Your task to perform on an android device: Is it going to rain this weekend? Image 0: 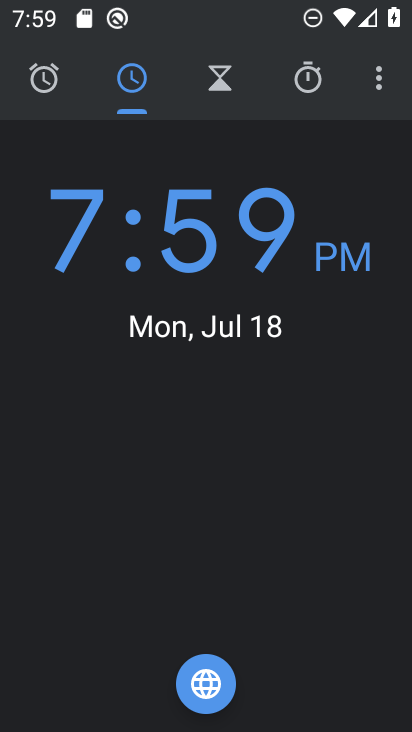
Step 0: press back button
Your task to perform on an android device: Is it going to rain this weekend? Image 1: 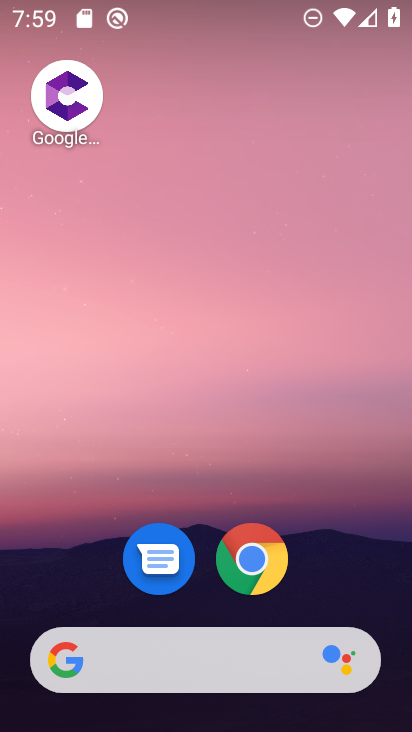
Step 1: drag from (156, 489) to (214, 78)
Your task to perform on an android device: Is it going to rain this weekend? Image 2: 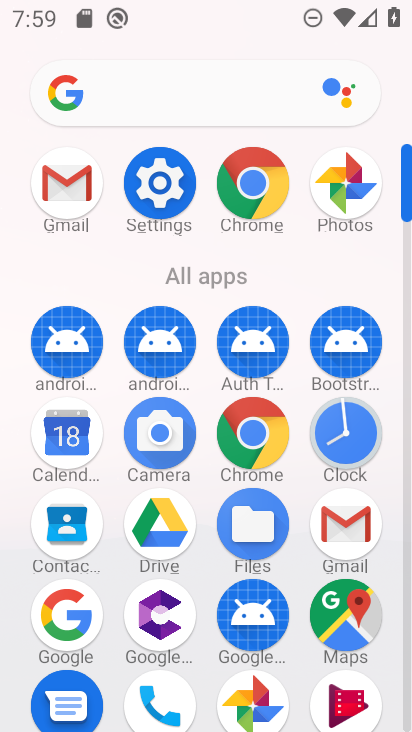
Step 2: click (151, 93)
Your task to perform on an android device: Is it going to rain this weekend? Image 3: 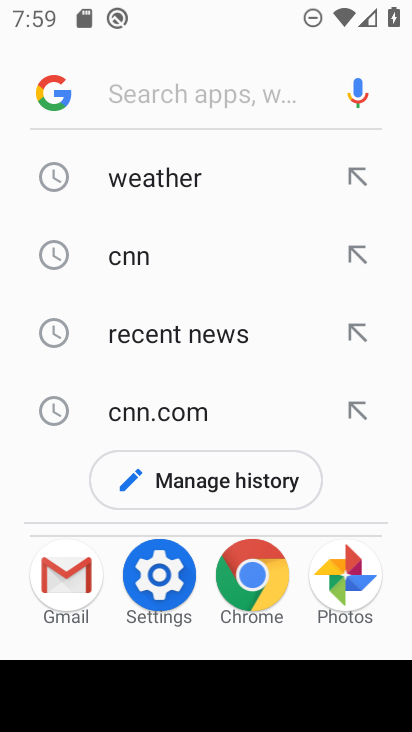
Step 3: click (150, 179)
Your task to perform on an android device: Is it going to rain this weekend? Image 4: 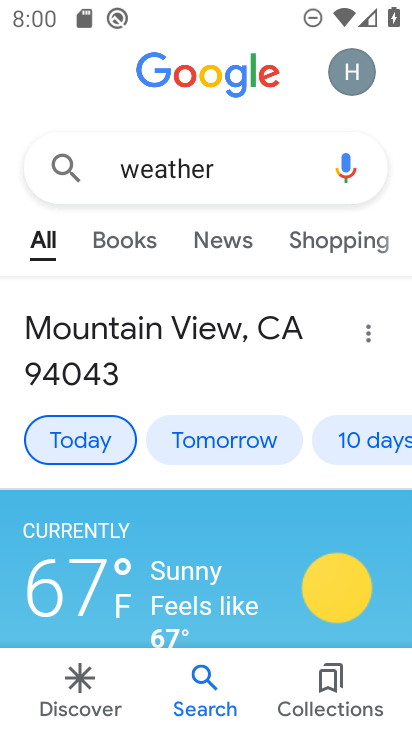
Step 4: click (383, 447)
Your task to perform on an android device: Is it going to rain this weekend? Image 5: 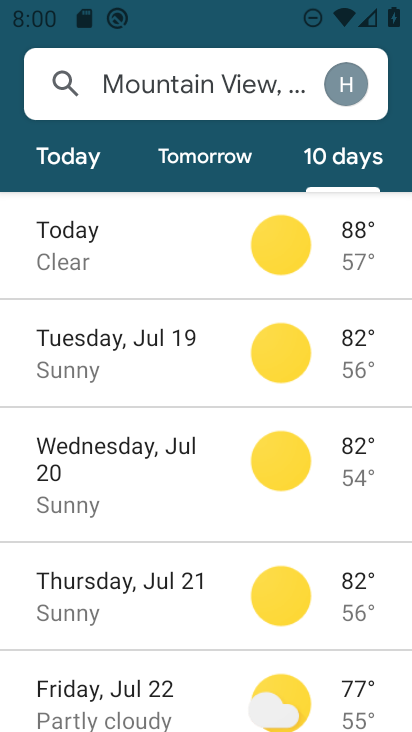
Step 5: task complete